Your task to perform on an android device: turn off picture-in-picture Image 0: 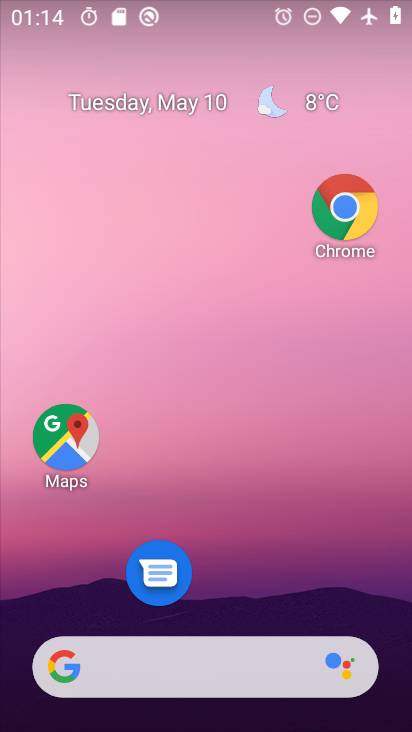
Step 0: click (353, 196)
Your task to perform on an android device: turn off picture-in-picture Image 1: 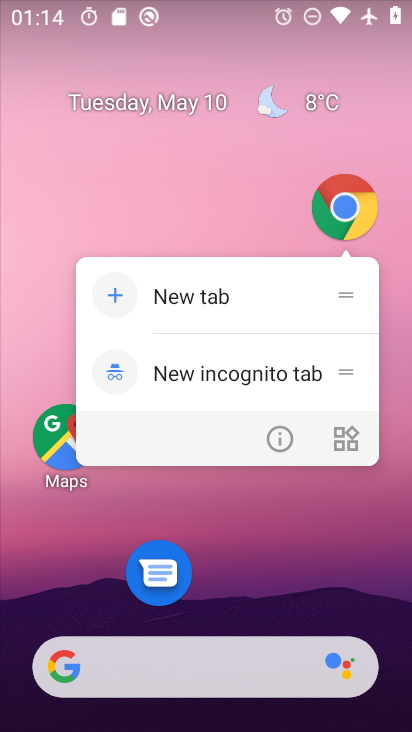
Step 1: click (278, 443)
Your task to perform on an android device: turn off picture-in-picture Image 2: 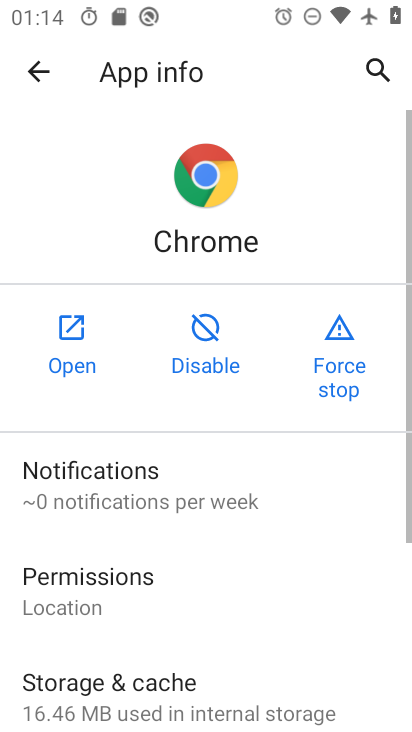
Step 2: drag from (200, 542) to (318, 52)
Your task to perform on an android device: turn off picture-in-picture Image 3: 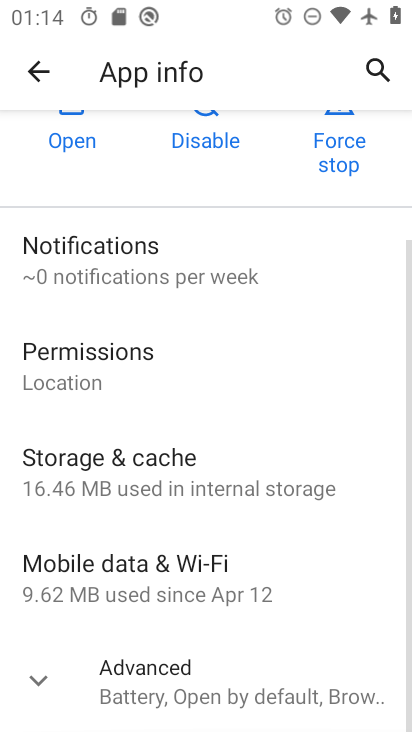
Step 3: drag from (167, 498) to (278, 205)
Your task to perform on an android device: turn off picture-in-picture Image 4: 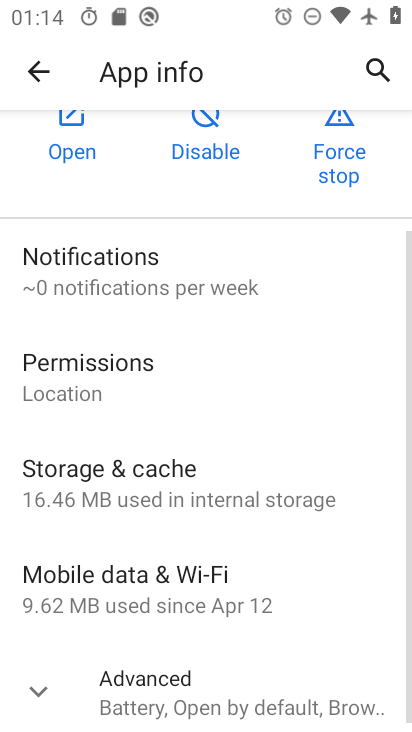
Step 4: click (153, 699)
Your task to perform on an android device: turn off picture-in-picture Image 5: 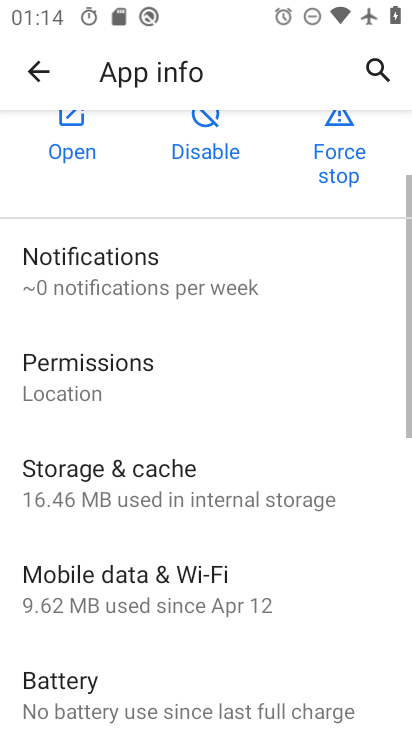
Step 5: drag from (278, 625) to (334, 243)
Your task to perform on an android device: turn off picture-in-picture Image 6: 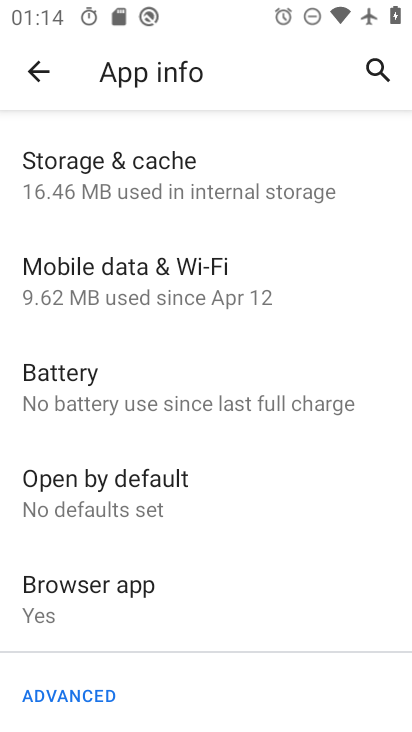
Step 6: drag from (314, 608) to (335, 157)
Your task to perform on an android device: turn off picture-in-picture Image 7: 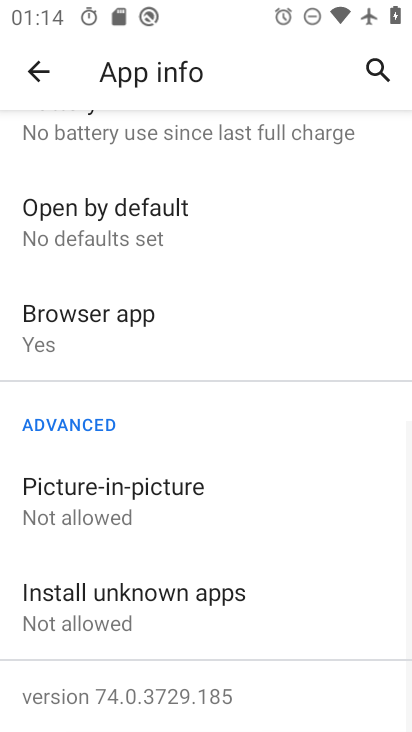
Step 7: drag from (239, 556) to (369, 209)
Your task to perform on an android device: turn off picture-in-picture Image 8: 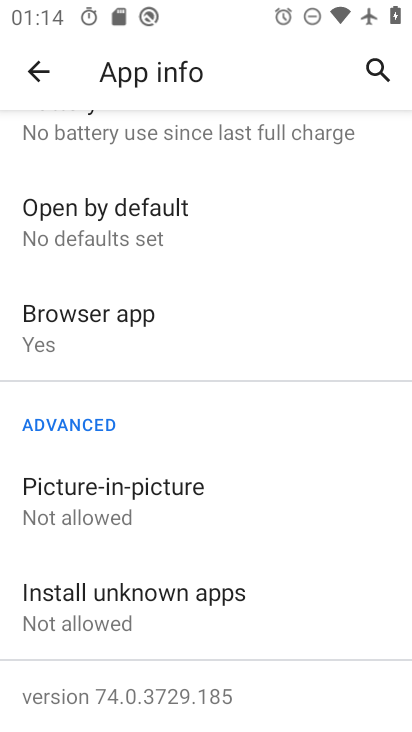
Step 8: click (139, 489)
Your task to perform on an android device: turn off picture-in-picture Image 9: 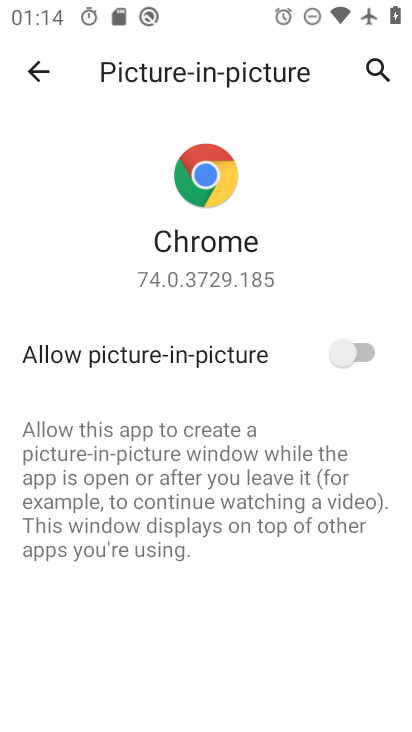
Step 9: task complete